Your task to perform on an android device: Open Google Maps Image 0: 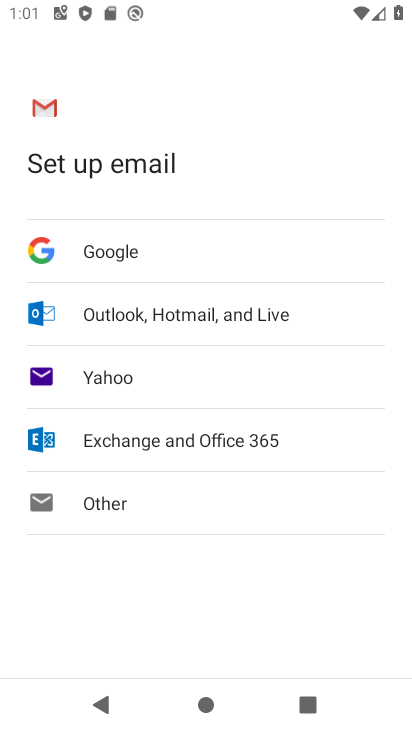
Step 0: press home button
Your task to perform on an android device: Open Google Maps Image 1: 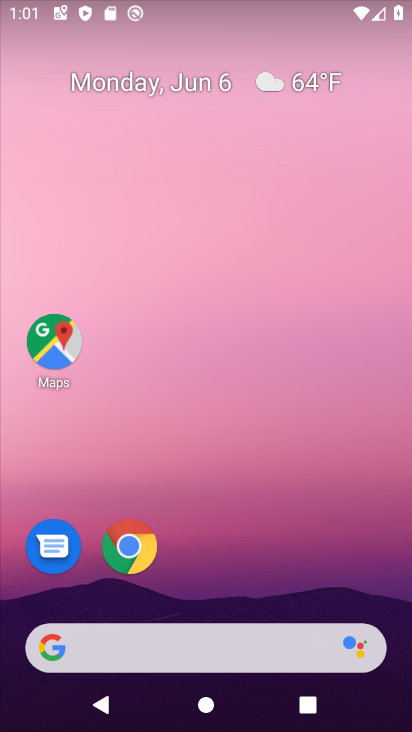
Step 1: click (59, 349)
Your task to perform on an android device: Open Google Maps Image 2: 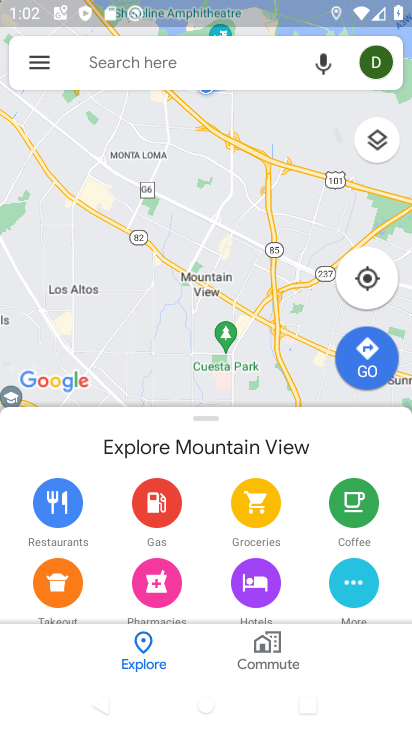
Step 2: task complete